Your task to perform on an android device: move a message to another label in the gmail app Image 0: 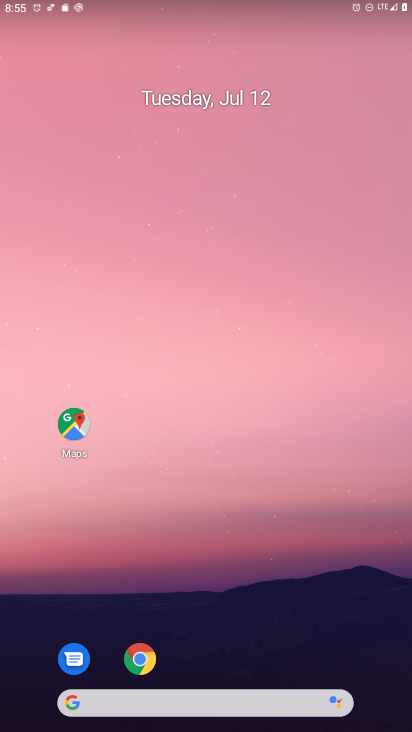
Step 0: drag from (219, 700) to (301, 50)
Your task to perform on an android device: move a message to another label in the gmail app Image 1: 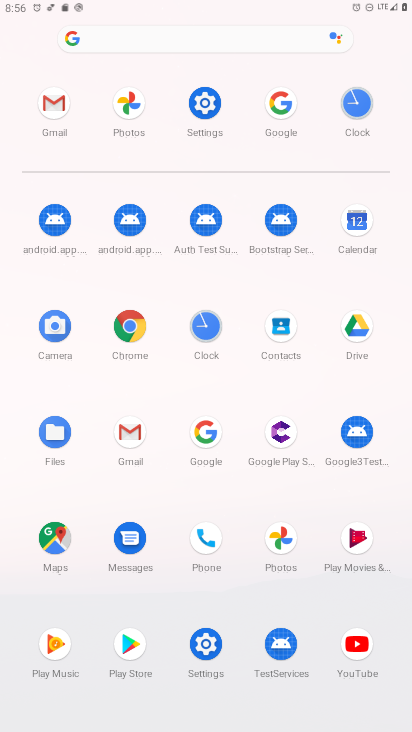
Step 1: click (55, 103)
Your task to perform on an android device: move a message to another label in the gmail app Image 2: 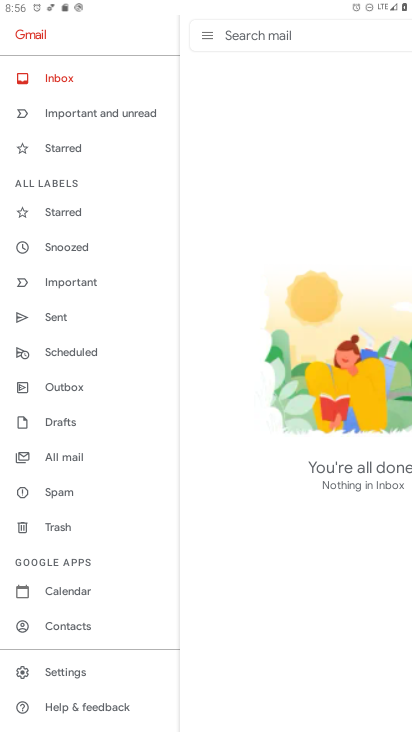
Step 2: click (60, 451)
Your task to perform on an android device: move a message to another label in the gmail app Image 3: 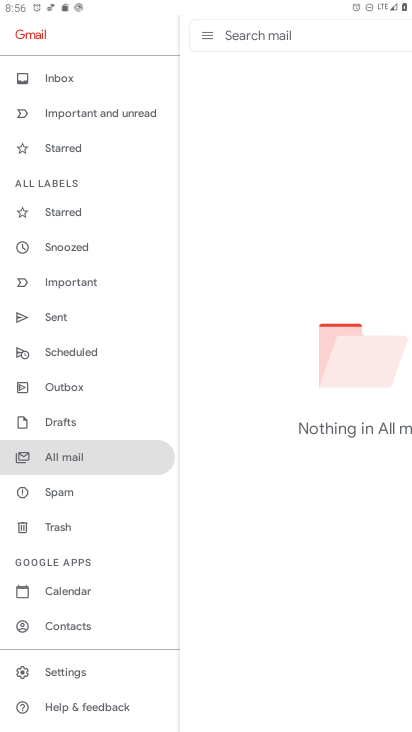
Step 3: click (61, 77)
Your task to perform on an android device: move a message to another label in the gmail app Image 4: 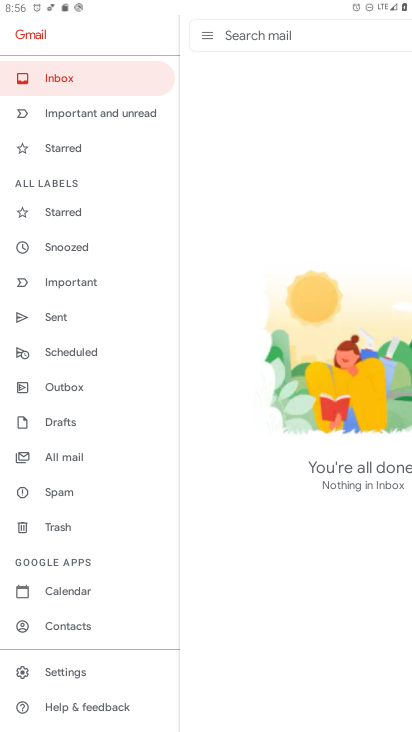
Step 4: click (68, 117)
Your task to perform on an android device: move a message to another label in the gmail app Image 5: 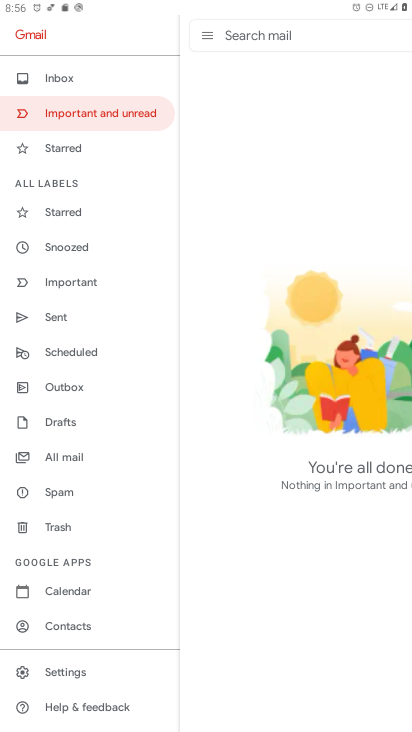
Step 5: click (73, 147)
Your task to perform on an android device: move a message to another label in the gmail app Image 6: 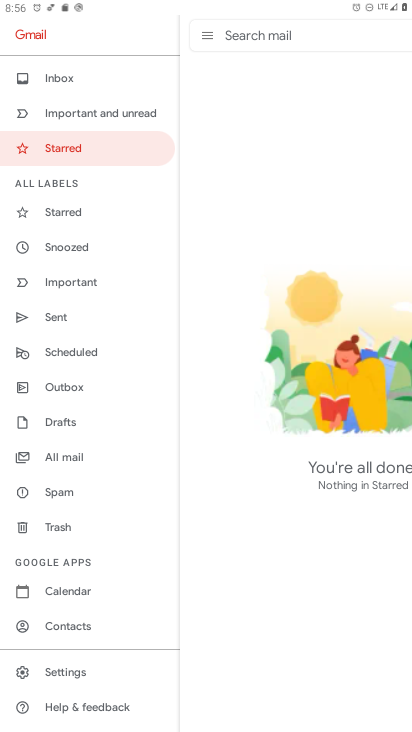
Step 6: click (72, 210)
Your task to perform on an android device: move a message to another label in the gmail app Image 7: 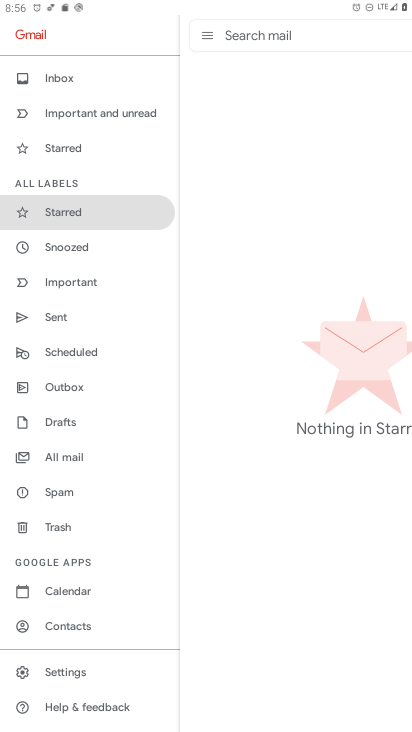
Step 7: click (73, 246)
Your task to perform on an android device: move a message to another label in the gmail app Image 8: 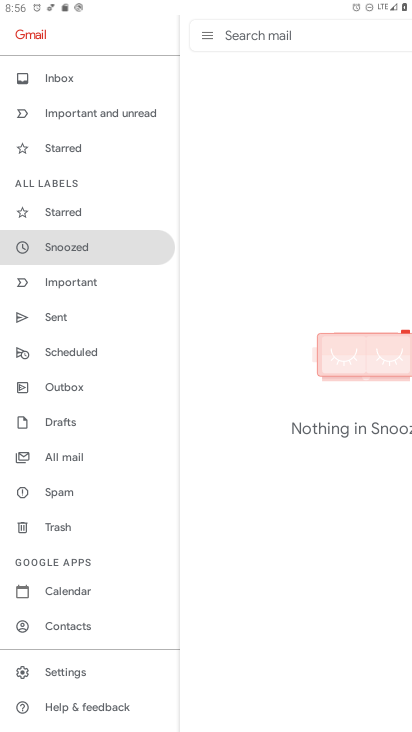
Step 8: click (71, 281)
Your task to perform on an android device: move a message to another label in the gmail app Image 9: 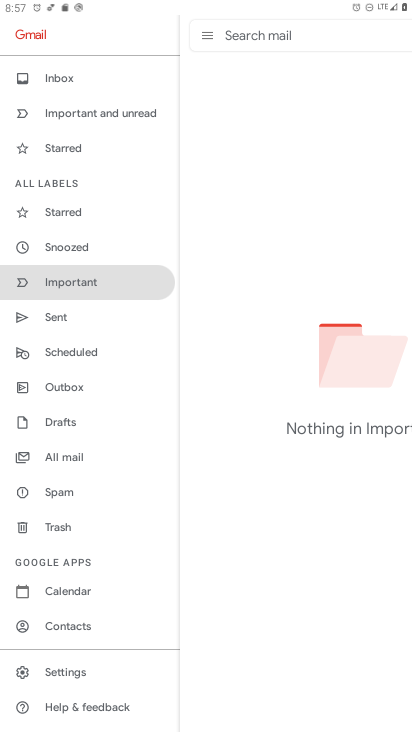
Step 9: click (62, 313)
Your task to perform on an android device: move a message to another label in the gmail app Image 10: 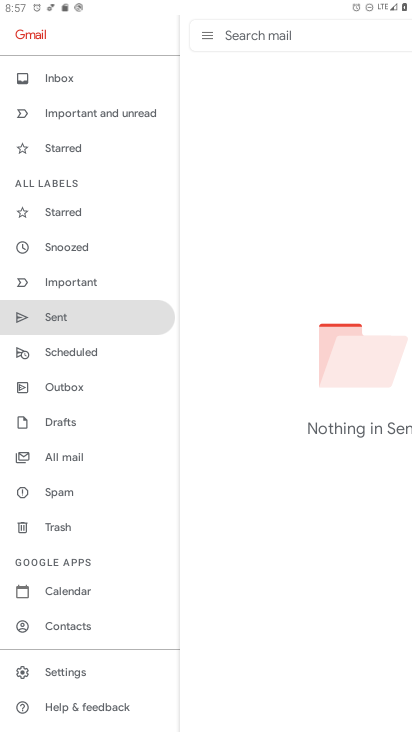
Step 10: click (61, 350)
Your task to perform on an android device: move a message to another label in the gmail app Image 11: 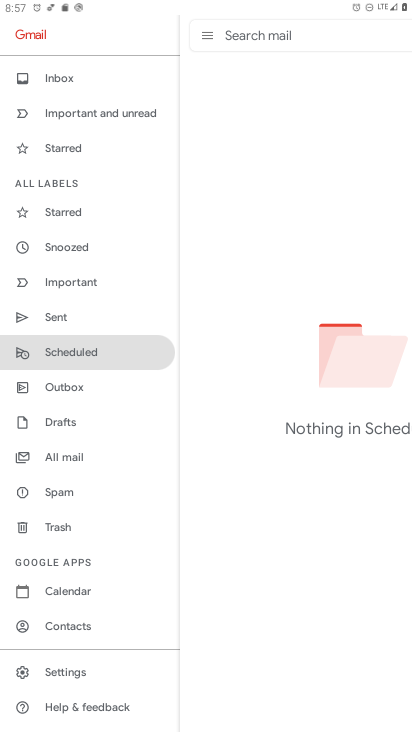
Step 11: task complete